Your task to perform on an android device: check storage Image 0: 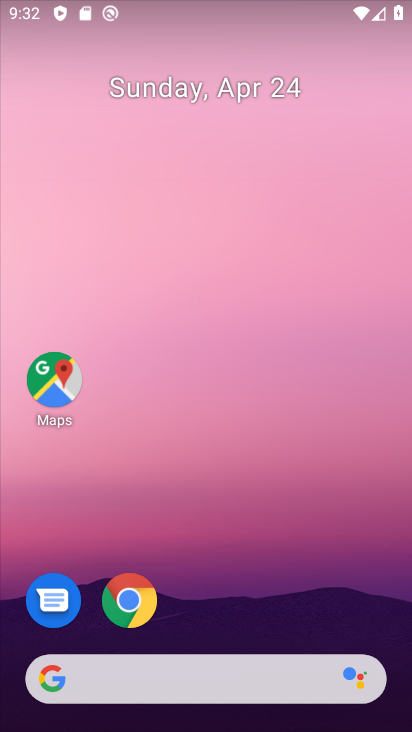
Step 0: drag from (228, 357) to (249, 9)
Your task to perform on an android device: check storage Image 1: 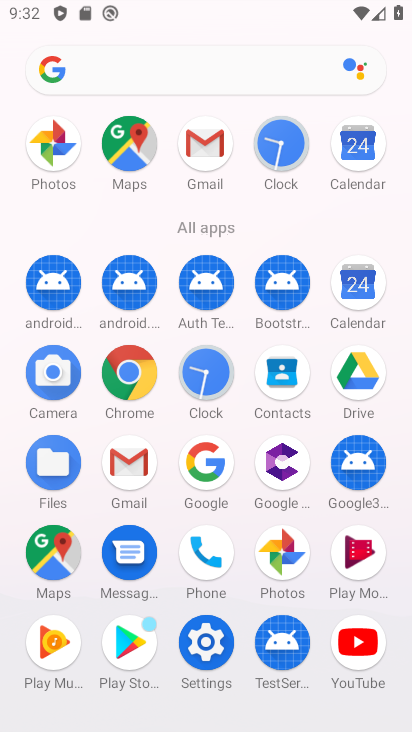
Step 1: click (222, 633)
Your task to perform on an android device: check storage Image 2: 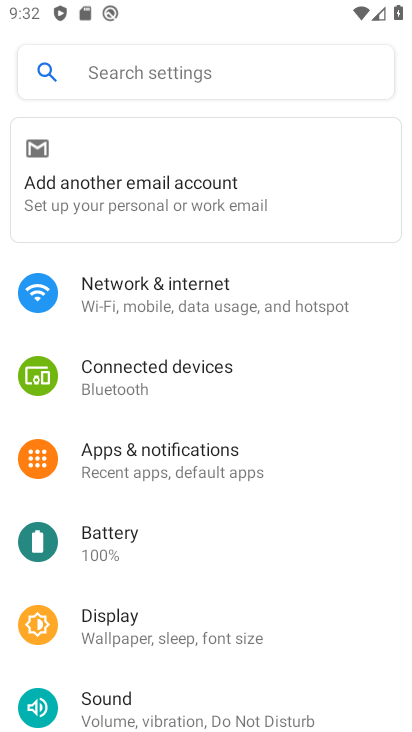
Step 2: drag from (137, 665) to (200, 230)
Your task to perform on an android device: check storage Image 3: 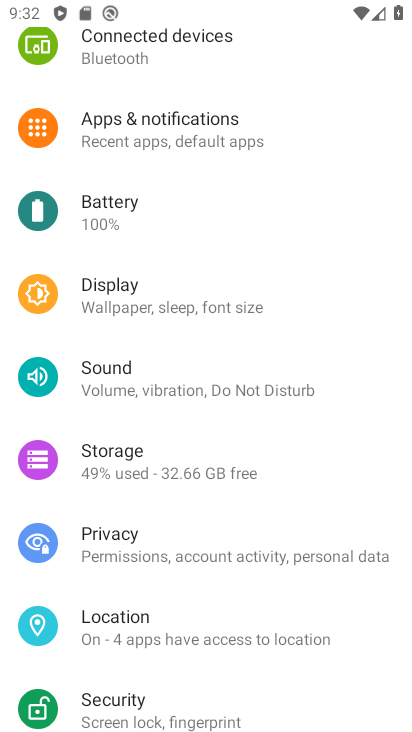
Step 3: click (154, 470)
Your task to perform on an android device: check storage Image 4: 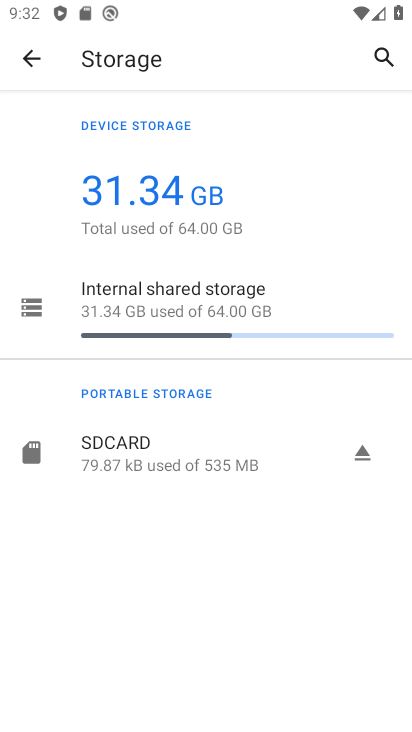
Step 4: click (171, 307)
Your task to perform on an android device: check storage Image 5: 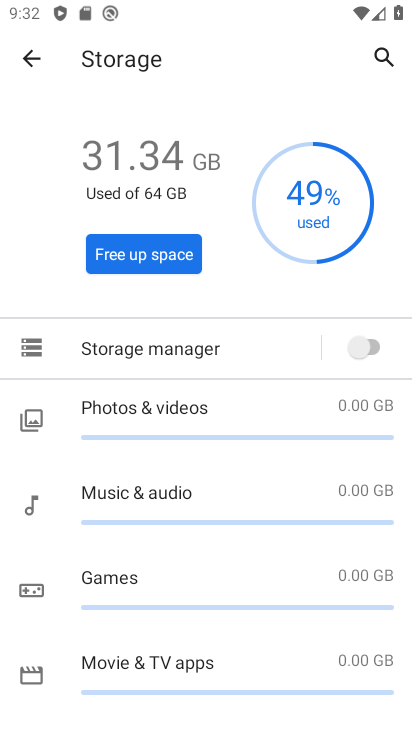
Step 5: task complete